Your task to perform on an android device: turn off data saver in the chrome app Image 0: 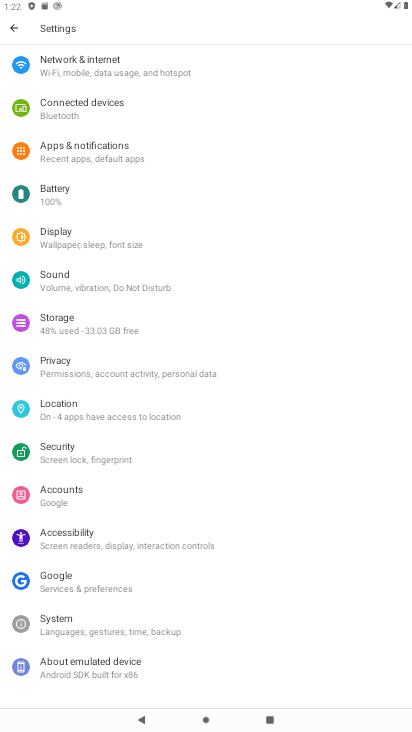
Step 0: press home button
Your task to perform on an android device: turn off data saver in the chrome app Image 1: 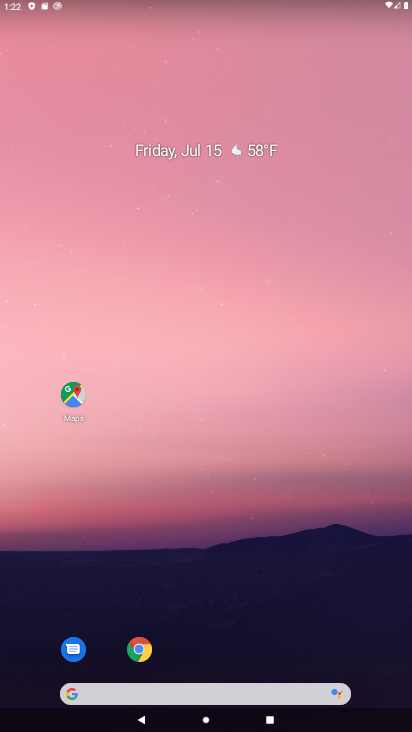
Step 1: drag from (280, 628) to (241, 115)
Your task to perform on an android device: turn off data saver in the chrome app Image 2: 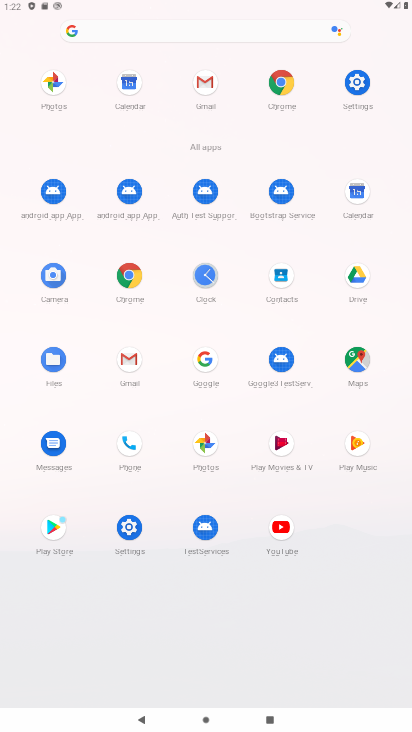
Step 2: click (126, 278)
Your task to perform on an android device: turn off data saver in the chrome app Image 3: 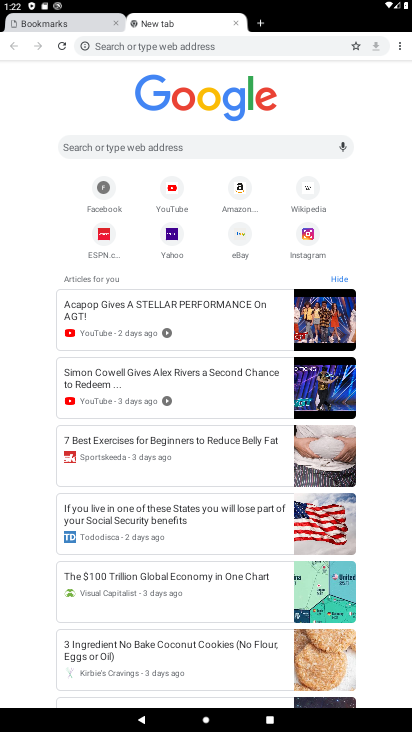
Step 3: drag from (396, 36) to (320, 213)
Your task to perform on an android device: turn off data saver in the chrome app Image 4: 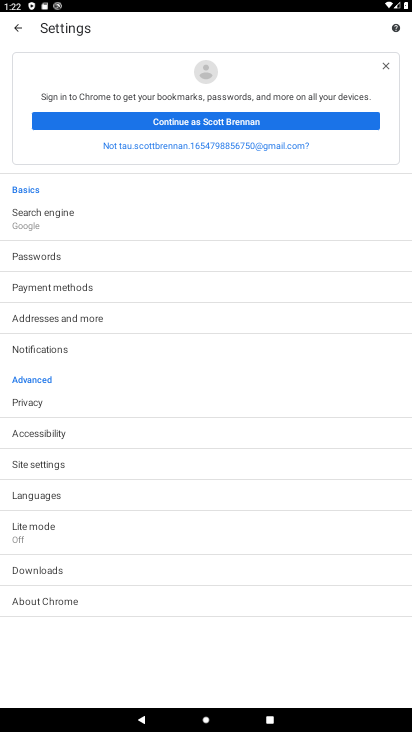
Step 4: click (55, 465)
Your task to perform on an android device: turn off data saver in the chrome app Image 5: 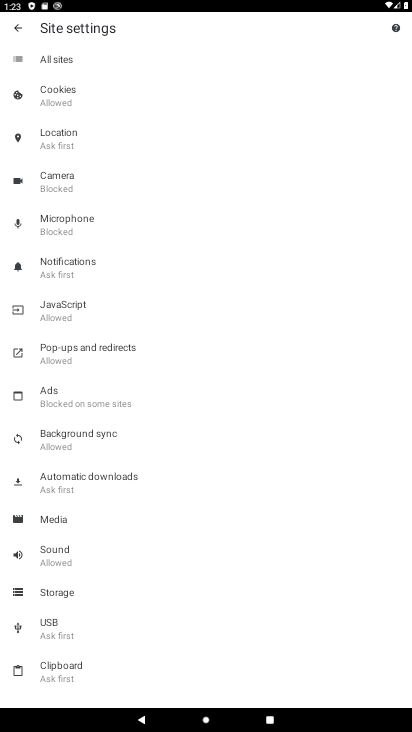
Step 5: press back button
Your task to perform on an android device: turn off data saver in the chrome app Image 6: 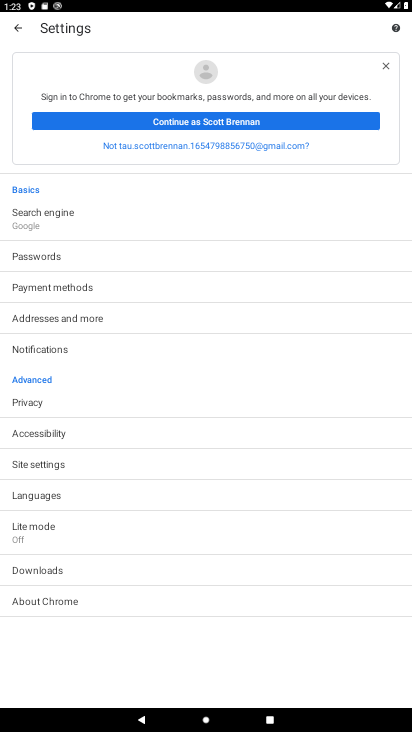
Step 6: click (58, 536)
Your task to perform on an android device: turn off data saver in the chrome app Image 7: 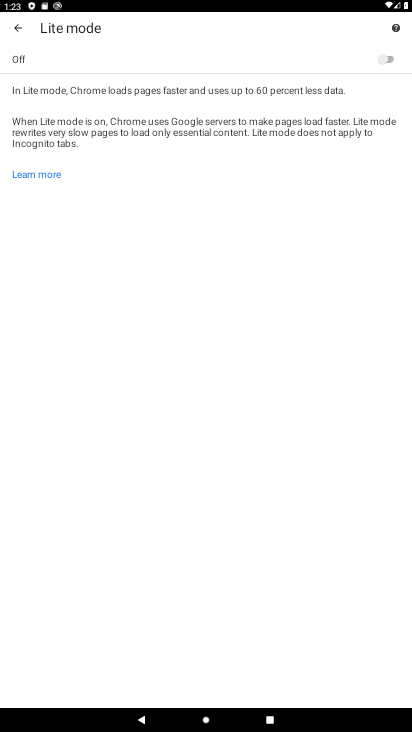
Step 7: task complete